Your task to perform on an android device: change your default location settings in chrome Image 0: 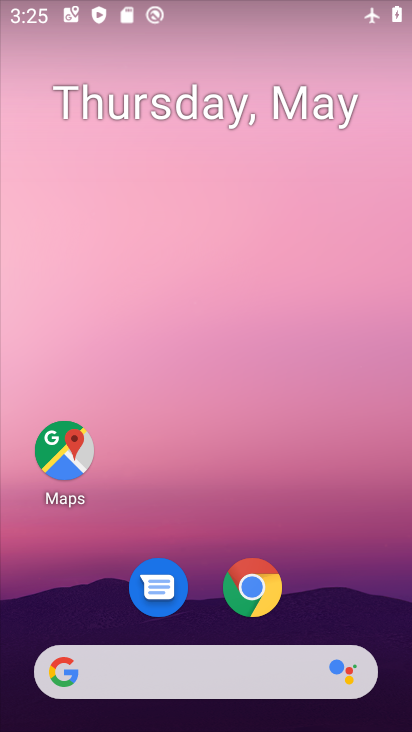
Step 0: drag from (220, 520) to (216, 244)
Your task to perform on an android device: change your default location settings in chrome Image 1: 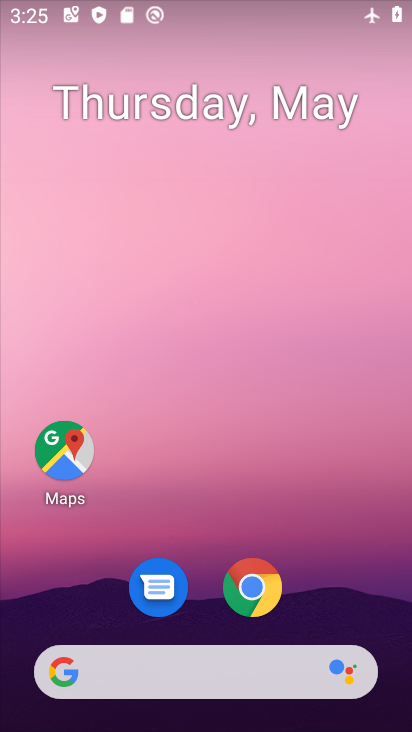
Step 1: drag from (210, 664) to (268, 254)
Your task to perform on an android device: change your default location settings in chrome Image 2: 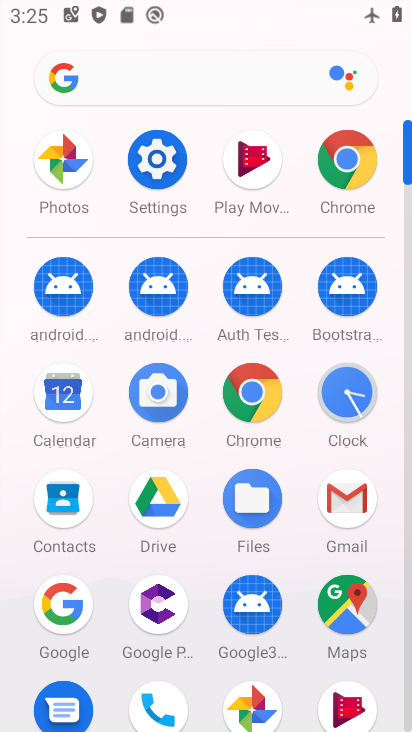
Step 2: click (348, 185)
Your task to perform on an android device: change your default location settings in chrome Image 3: 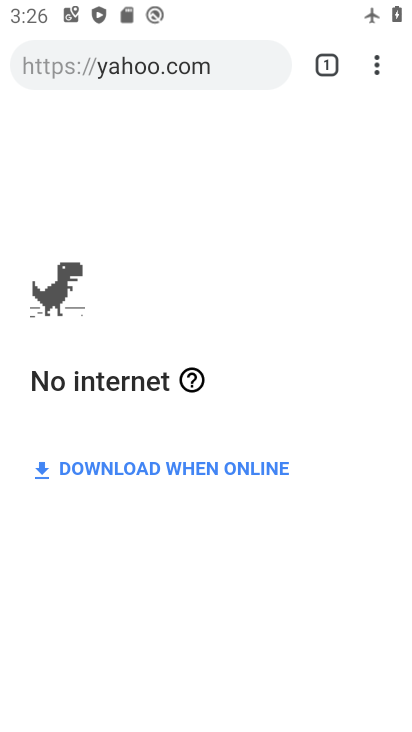
Step 3: click (377, 68)
Your task to perform on an android device: change your default location settings in chrome Image 4: 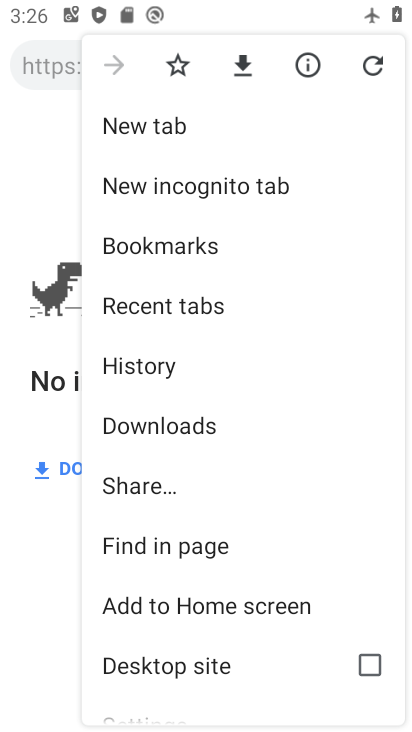
Step 4: drag from (174, 466) to (190, 302)
Your task to perform on an android device: change your default location settings in chrome Image 5: 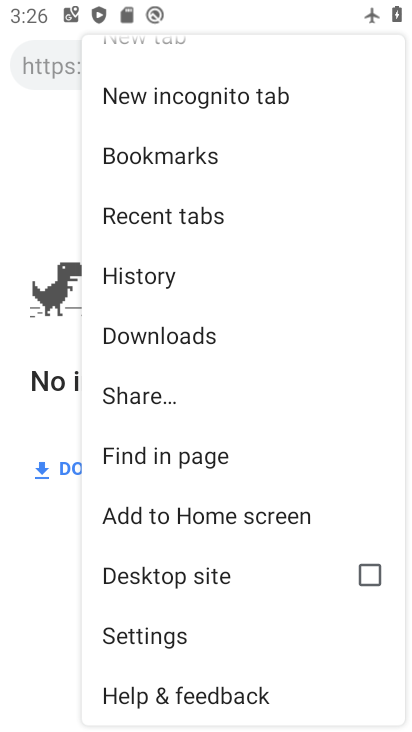
Step 5: click (180, 641)
Your task to perform on an android device: change your default location settings in chrome Image 6: 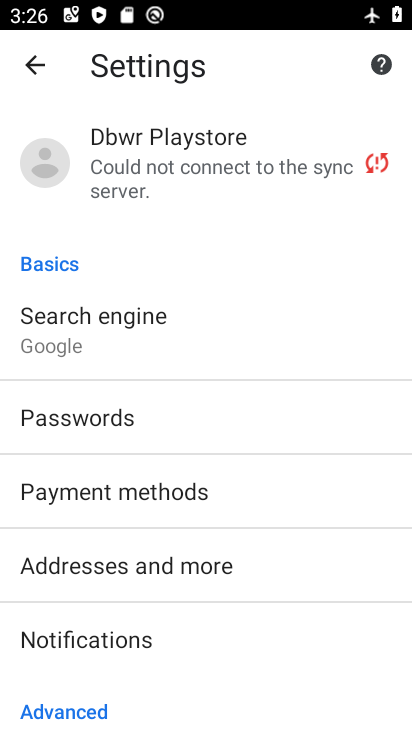
Step 6: drag from (171, 639) to (171, 384)
Your task to perform on an android device: change your default location settings in chrome Image 7: 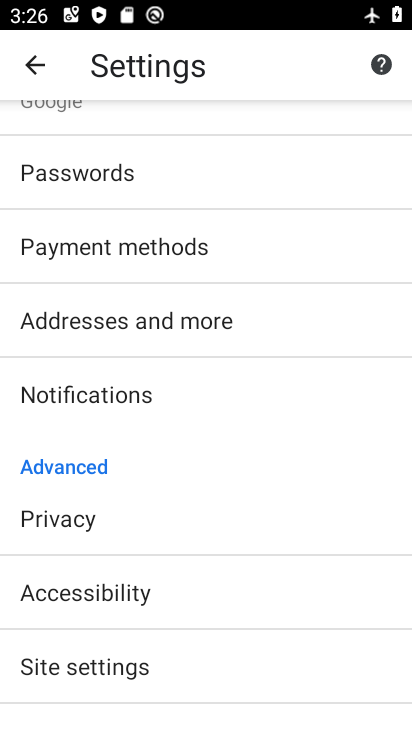
Step 7: drag from (127, 545) to (127, 466)
Your task to perform on an android device: change your default location settings in chrome Image 8: 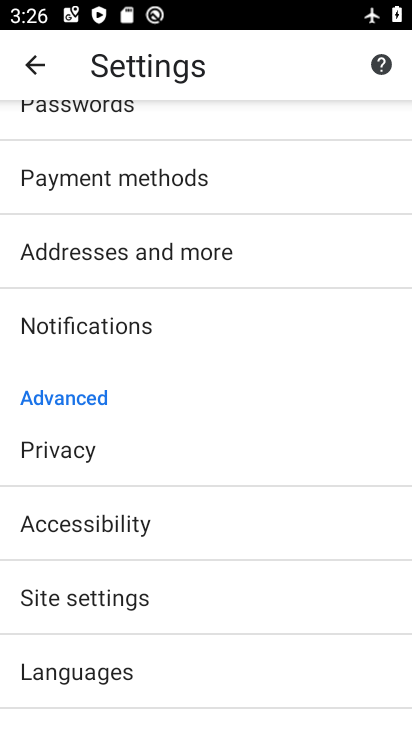
Step 8: click (128, 595)
Your task to perform on an android device: change your default location settings in chrome Image 9: 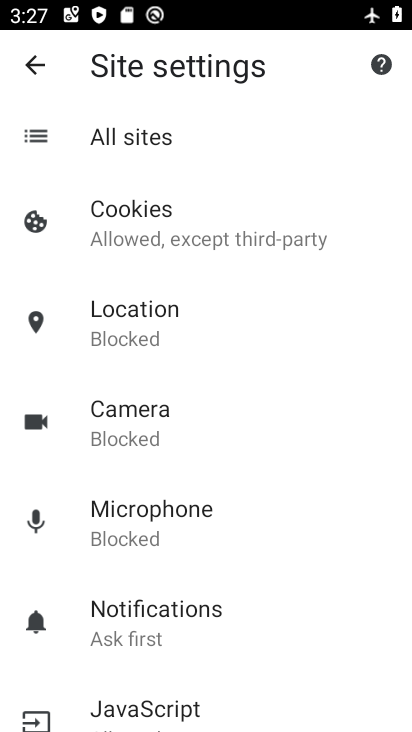
Step 9: drag from (177, 483) to (192, 313)
Your task to perform on an android device: change your default location settings in chrome Image 10: 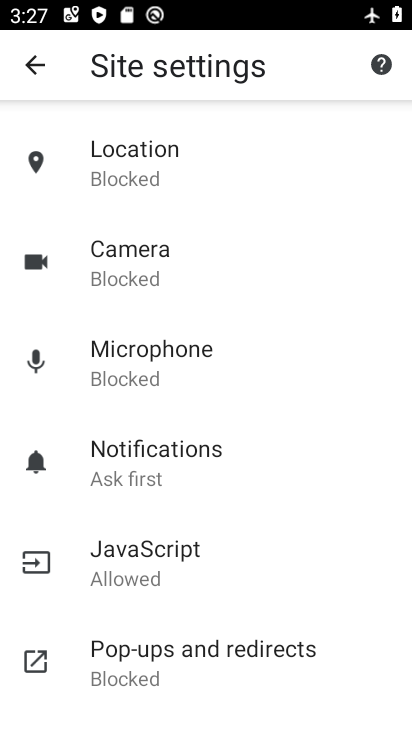
Step 10: drag from (161, 452) to (170, 383)
Your task to perform on an android device: change your default location settings in chrome Image 11: 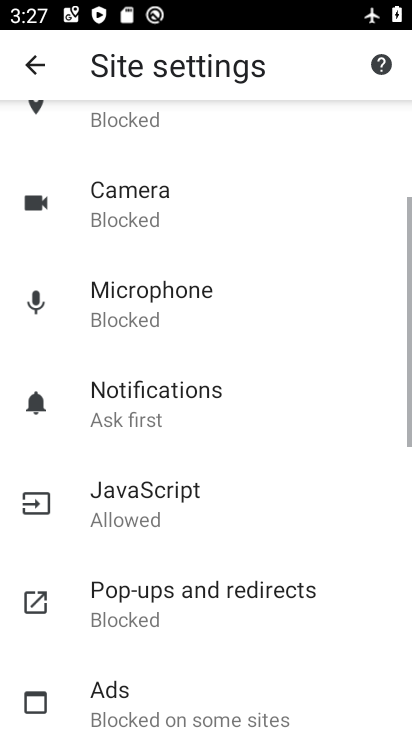
Step 11: drag from (170, 391) to (170, 629)
Your task to perform on an android device: change your default location settings in chrome Image 12: 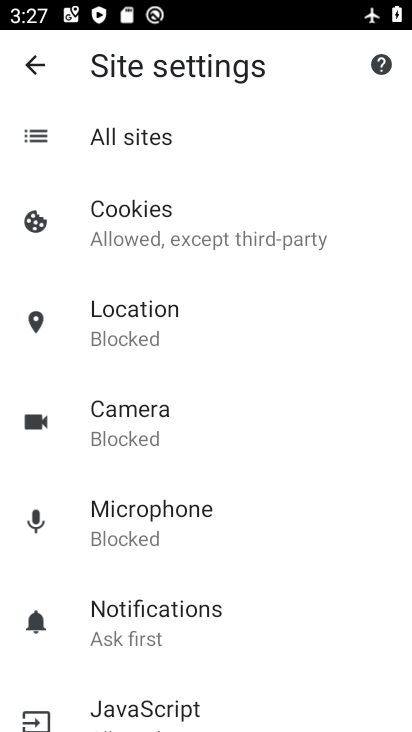
Step 12: click (169, 331)
Your task to perform on an android device: change your default location settings in chrome Image 13: 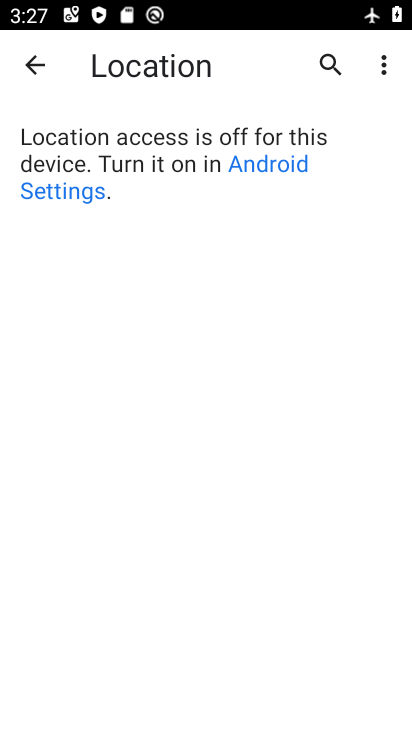
Step 13: task complete